Your task to perform on an android device: Turn on the flashlight Image 0: 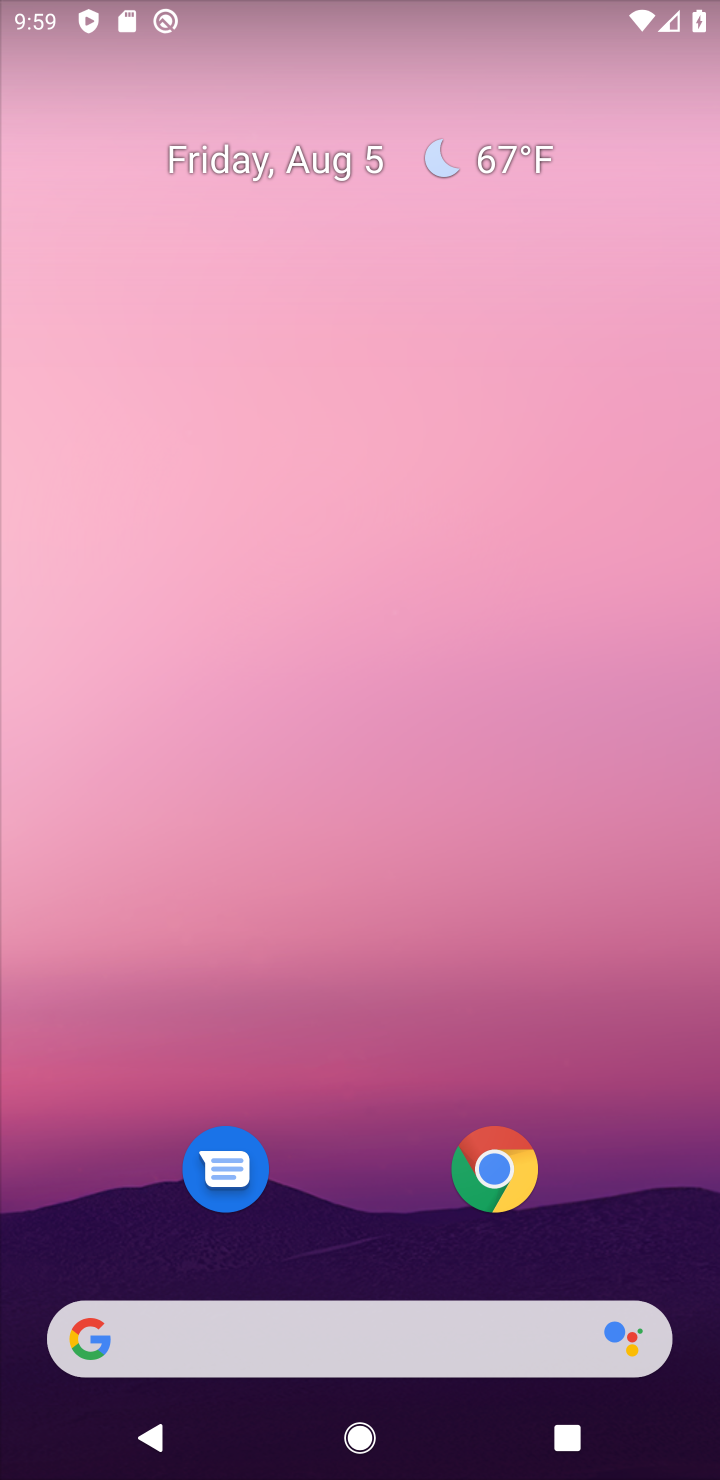
Step 0: drag from (435, 28) to (388, 855)
Your task to perform on an android device: Turn on the flashlight Image 1: 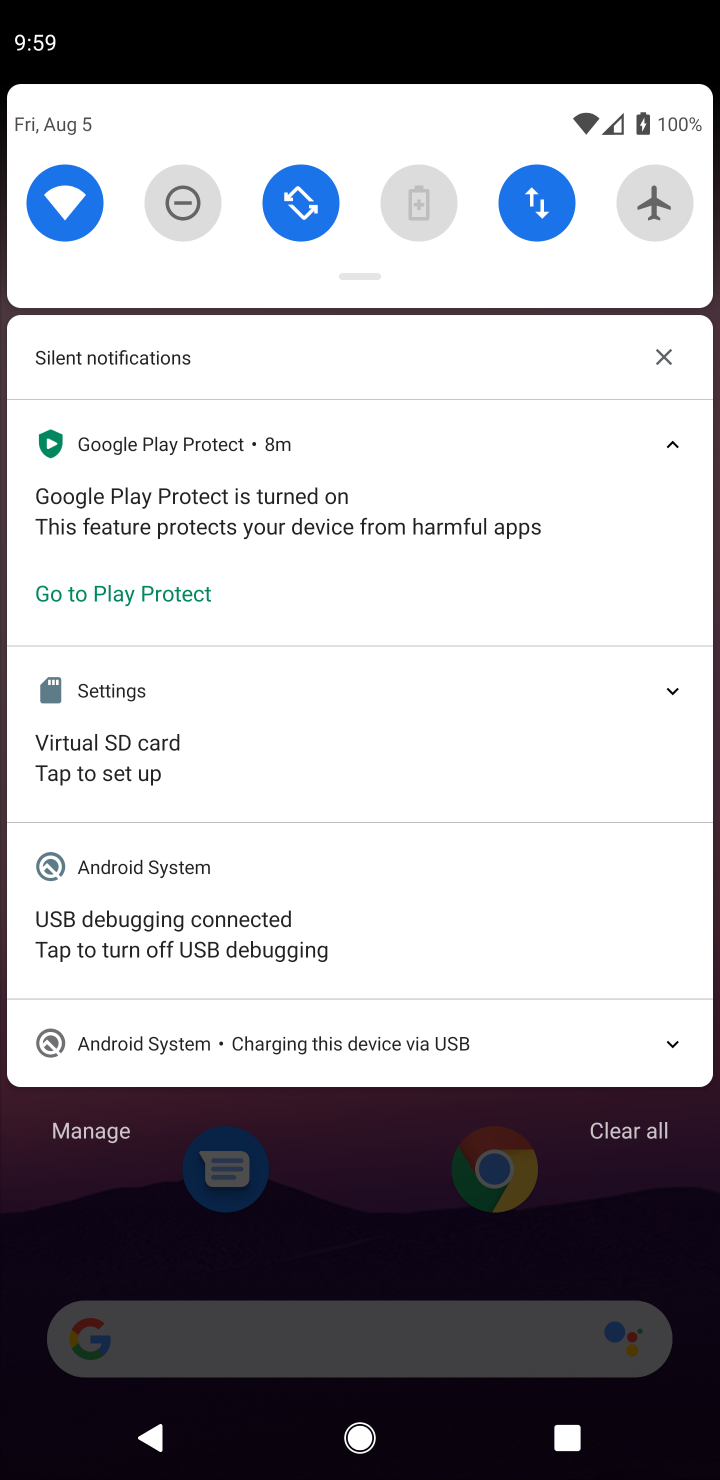
Step 1: drag from (356, 276) to (362, 827)
Your task to perform on an android device: Turn on the flashlight Image 2: 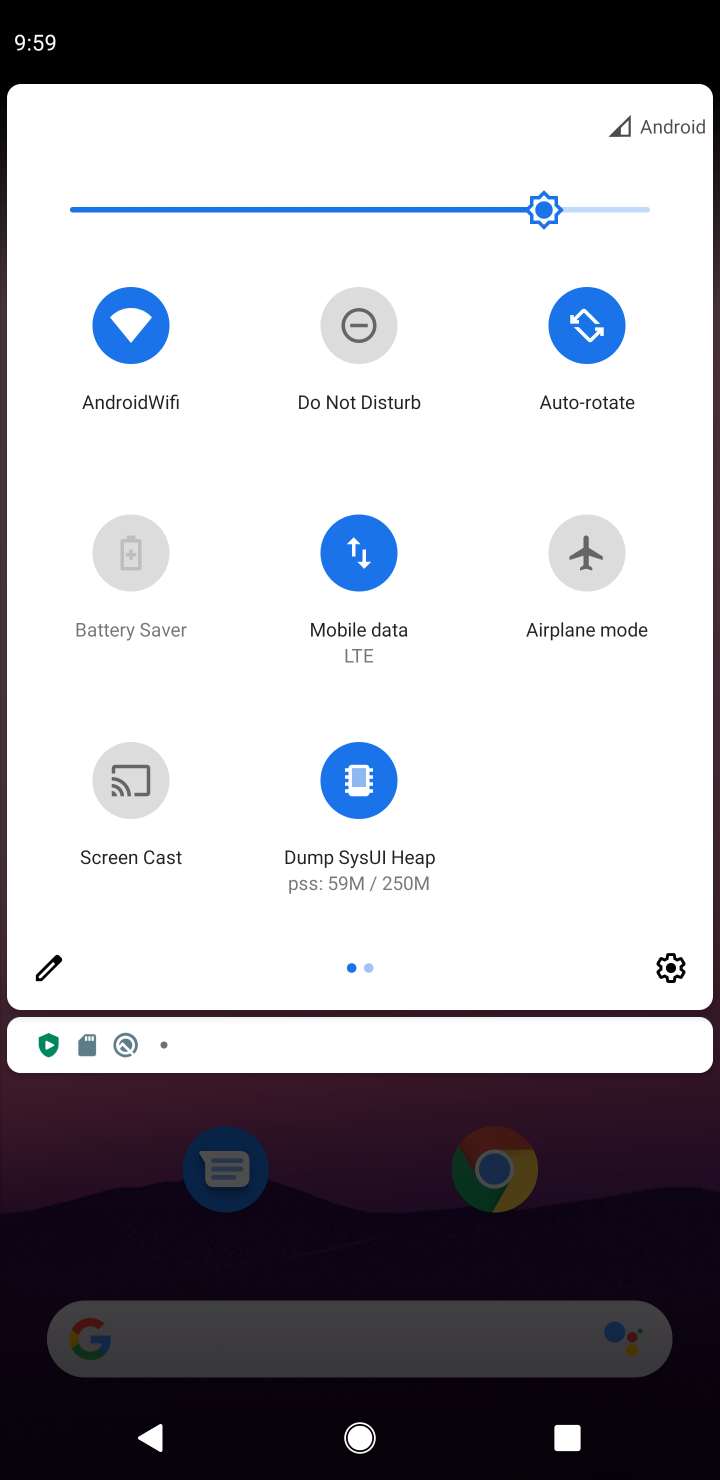
Step 2: click (48, 966)
Your task to perform on an android device: Turn on the flashlight Image 3: 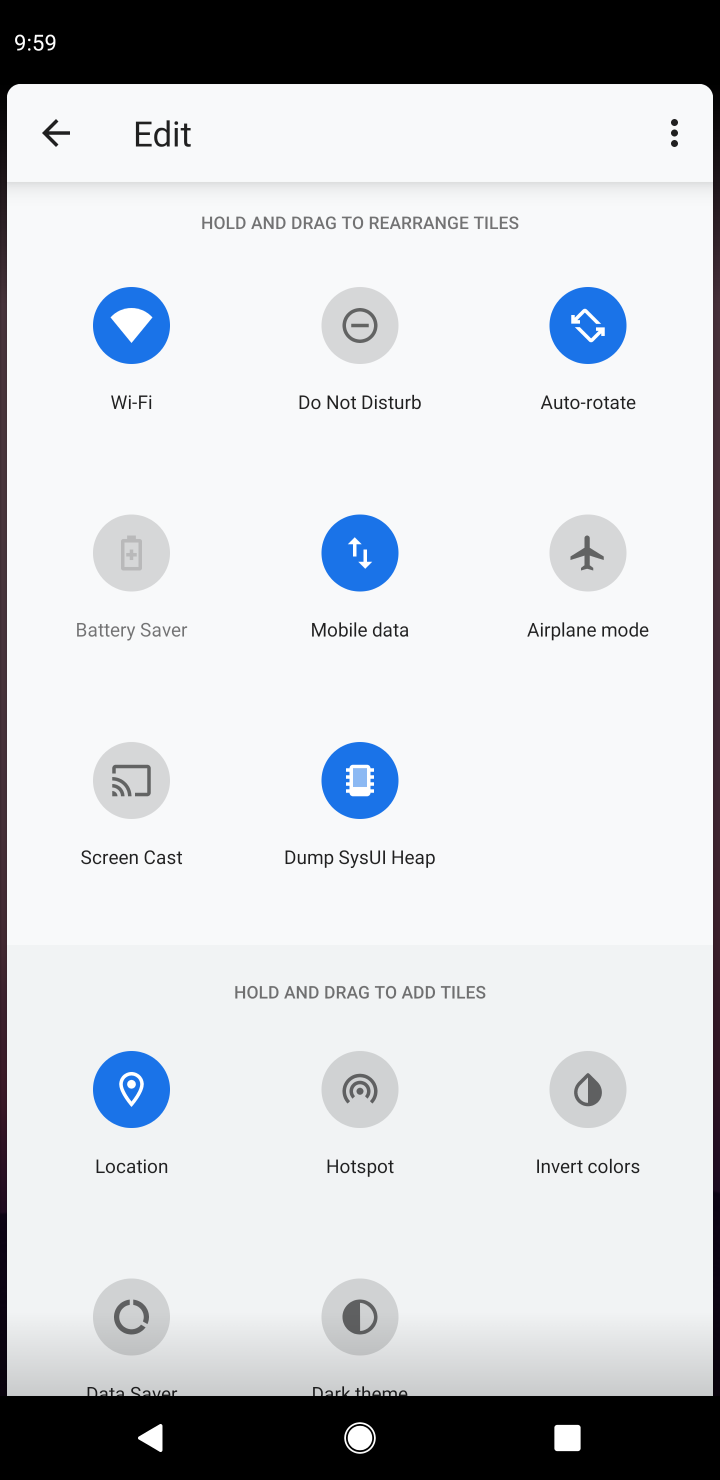
Step 3: task complete